Your task to perform on an android device: open app "Spotify: Music and Podcasts" Image 0: 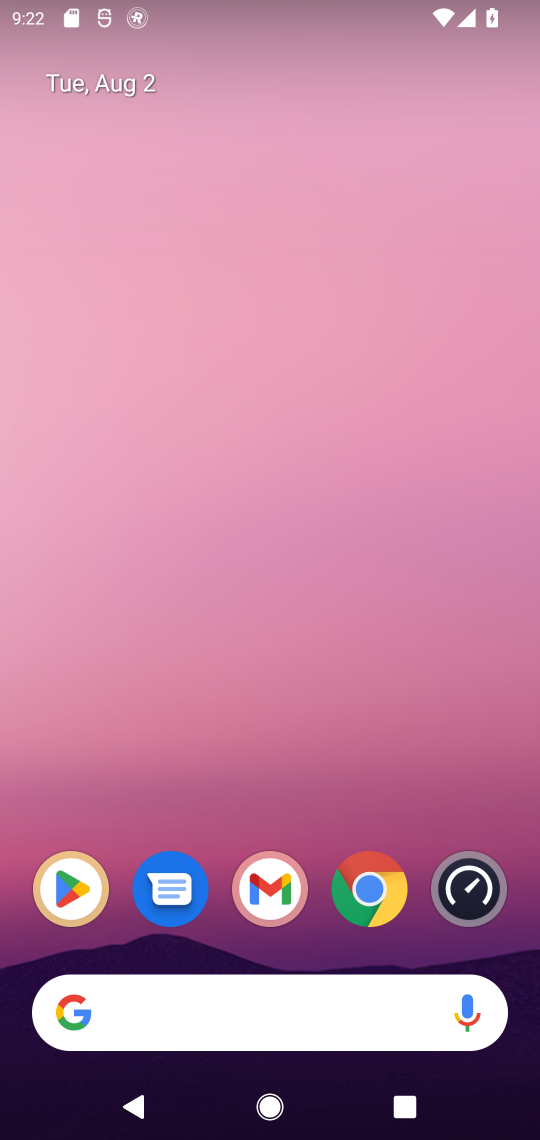
Step 0: click (78, 891)
Your task to perform on an android device: open app "Spotify: Music and Podcasts" Image 1: 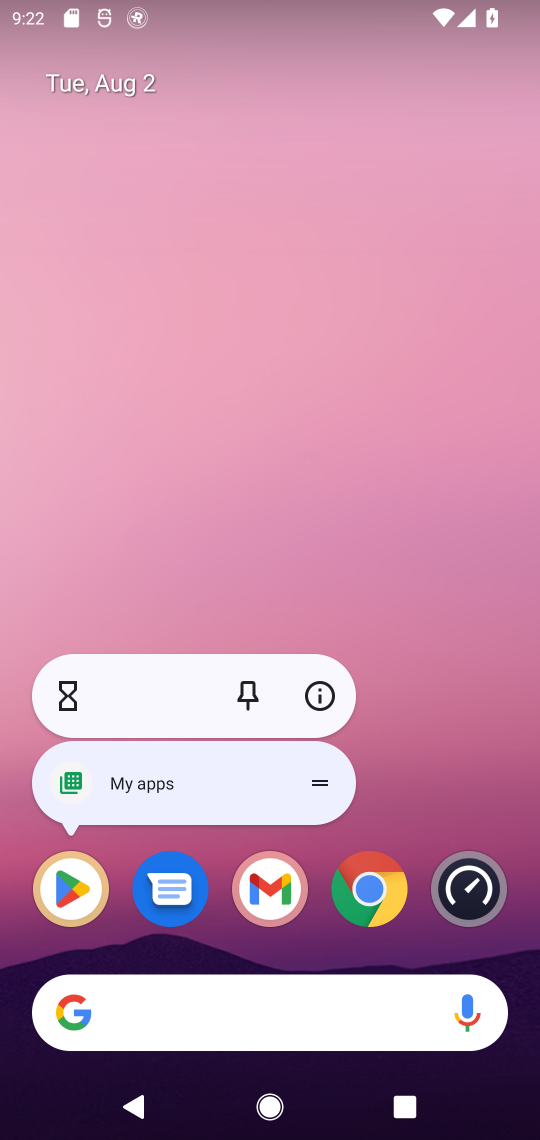
Step 1: click (78, 893)
Your task to perform on an android device: open app "Spotify: Music and Podcasts" Image 2: 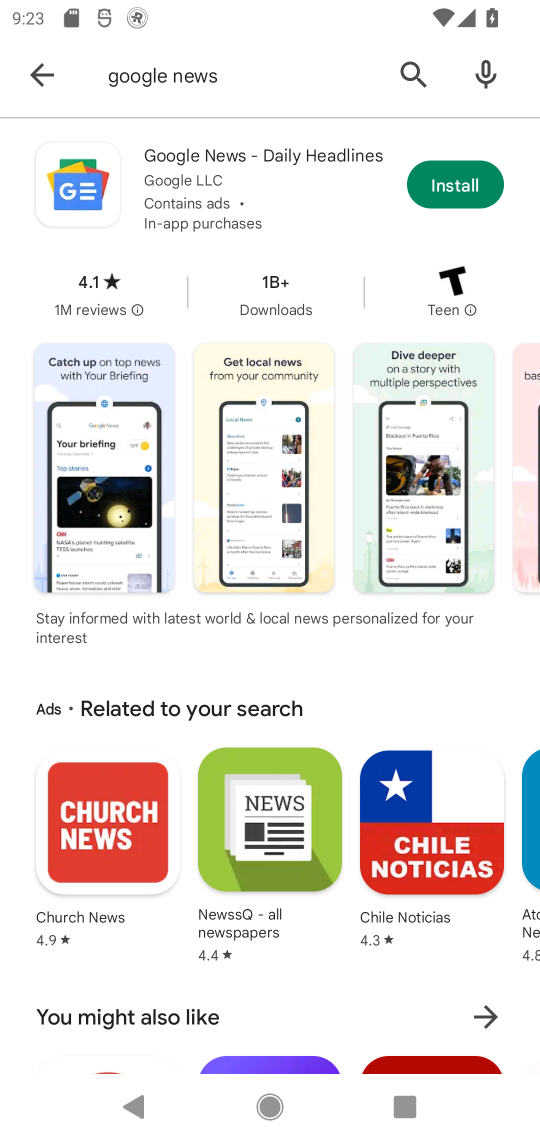
Step 2: click (414, 72)
Your task to perform on an android device: open app "Spotify: Music and Podcasts" Image 3: 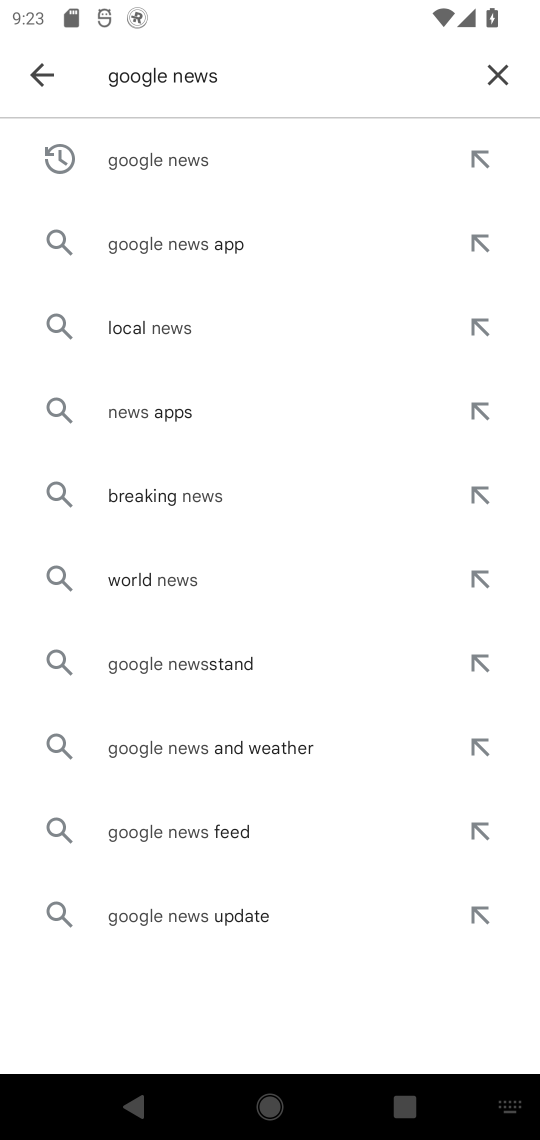
Step 3: type "Spotify: Music and Podcasts"
Your task to perform on an android device: open app "Spotify: Music and Podcasts" Image 4: 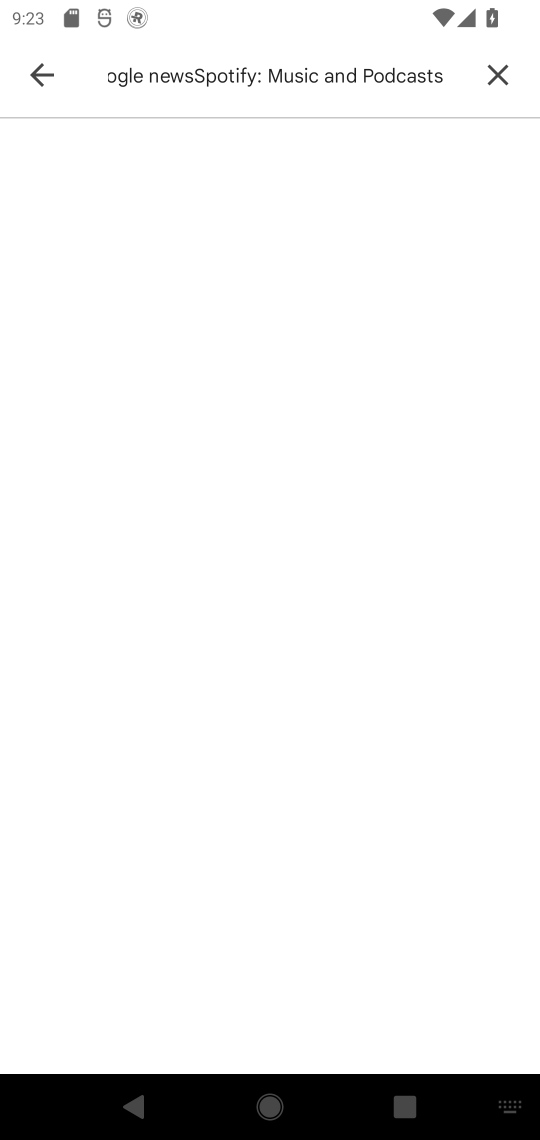
Step 4: click (495, 64)
Your task to perform on an android device: open app "Spotify: Music and Podcasts" Image 5: 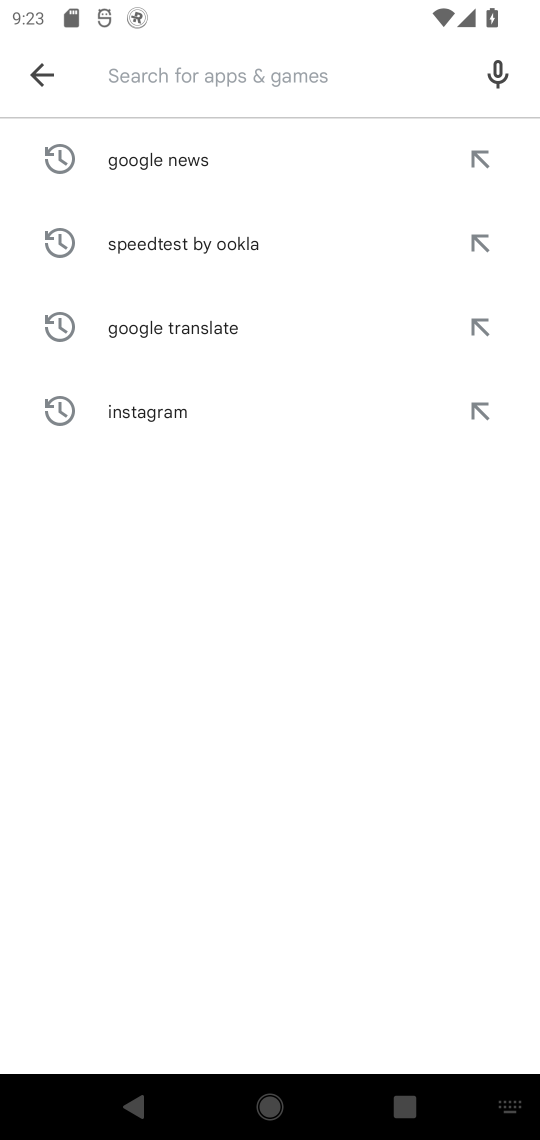
Step 5: type "Spotify: Music and Podcasts"
Your task to perform on an android device: open app "Spotify: Music and Podcasts" Image 6: 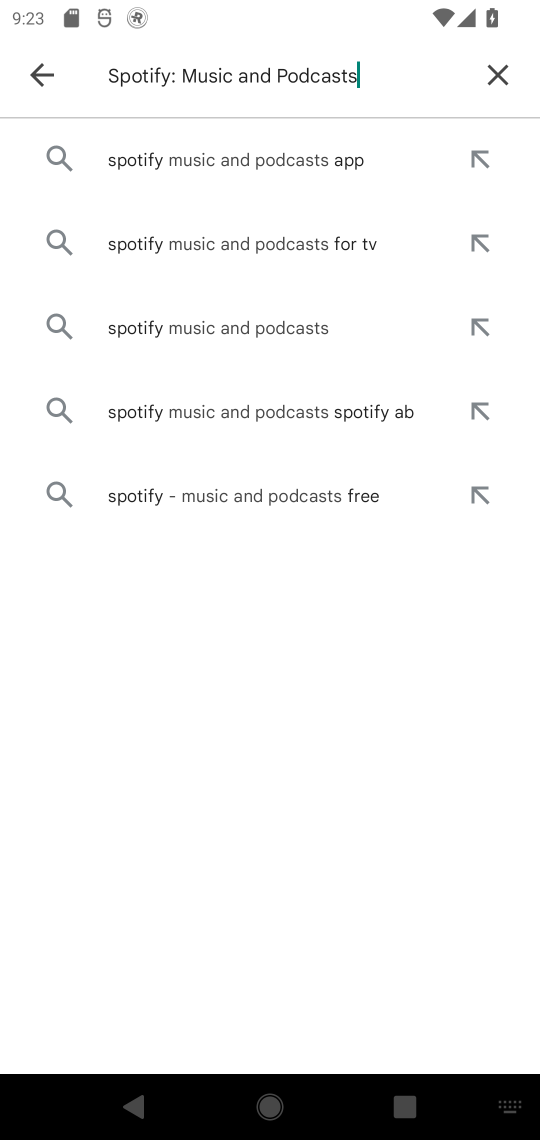
Step 6: click (217, 168)
Your task to perform on an android device: open app "Spotify: Music and Podcasts" Image 7: 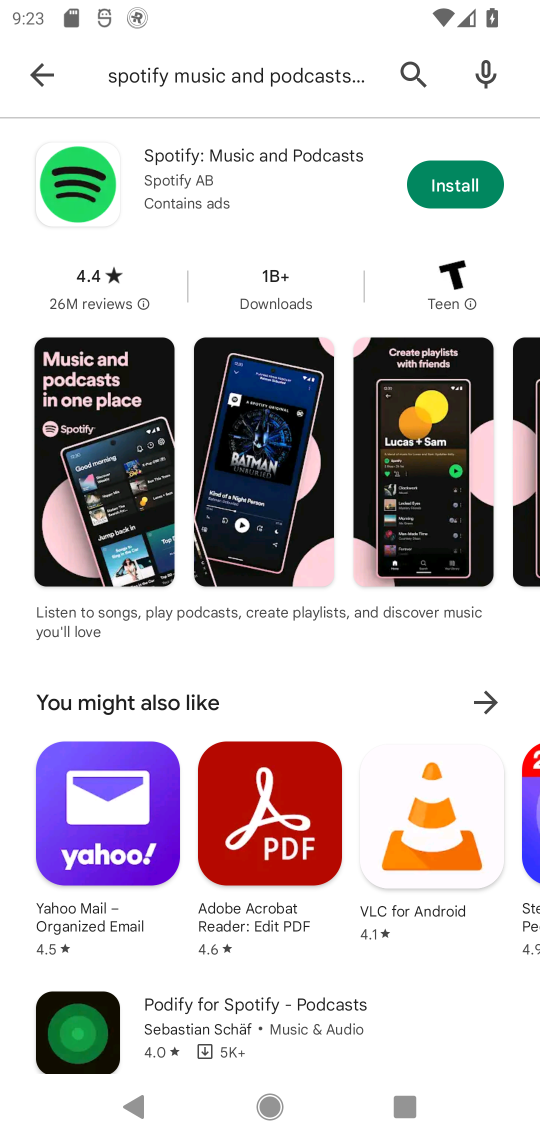
Step 7: task complete